Your task to perform on an android device: Go to eBay Image 0: 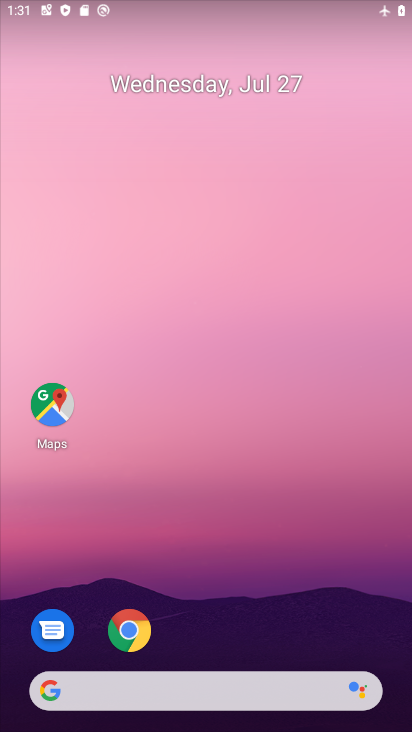
Step 0: click (132, 632)
Your task to perform on an android device: Go to eBay Image 1: 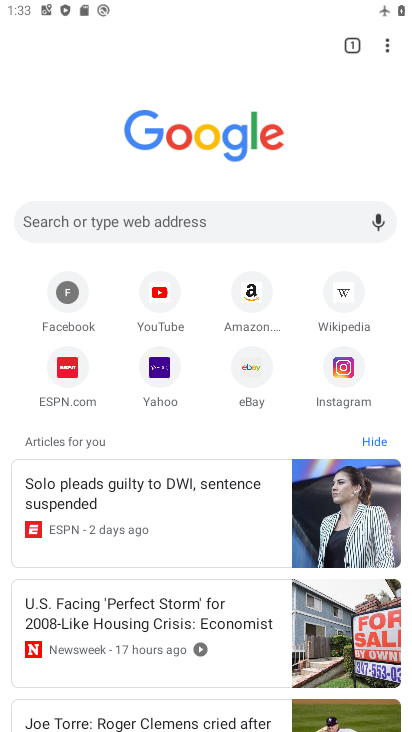
Step 1: click (242, 226)
Your task to perform on an android device: Go to eBay Image 2: 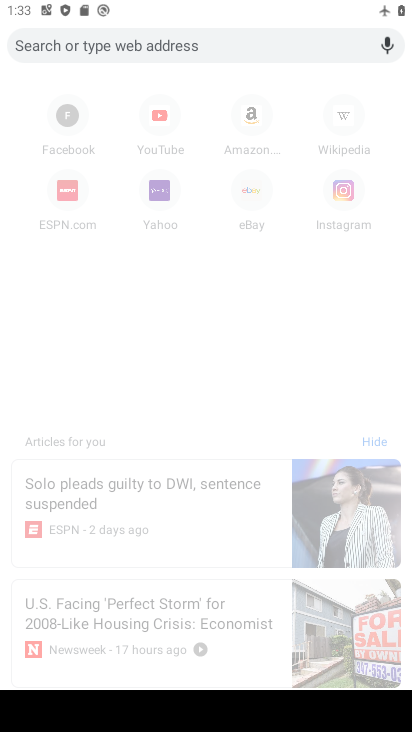
Step 2: type "eBay"
Your task to perform on an android device: Go to eBay Image 3: 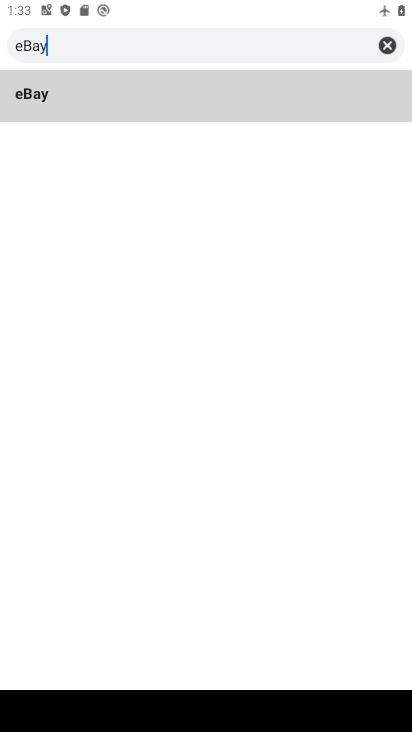
Step 3: click (91, 88)
Your task to perform on an android device: Go to eBay Image 4: 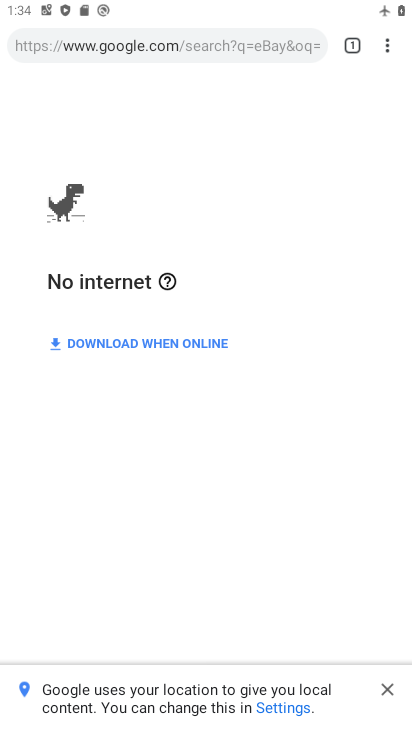
Step 4: task complete